Your task to perform on an android device: toggle wifi Image 0: 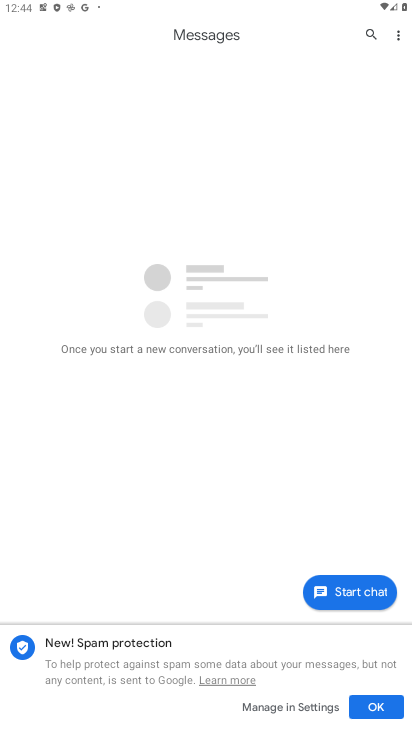
Step 0: press home button
Your task to perform on an android device: toggle wifi Image 1: 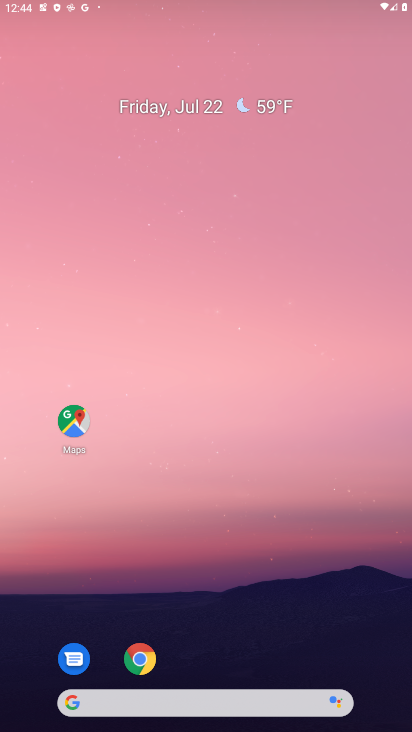
Step 1: drag from (287, 583) to (228, 48)
Your task to perform on an android device: toggle wifi Image 2: 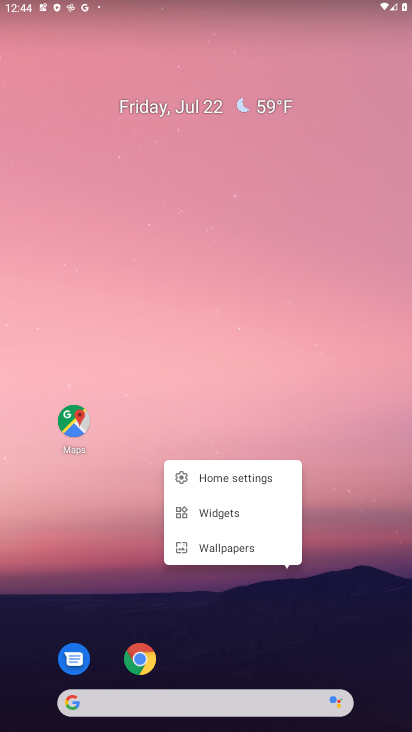
Step 2: click (387, 495)
Your task to perform on an android device: toggle wifi Image 3: 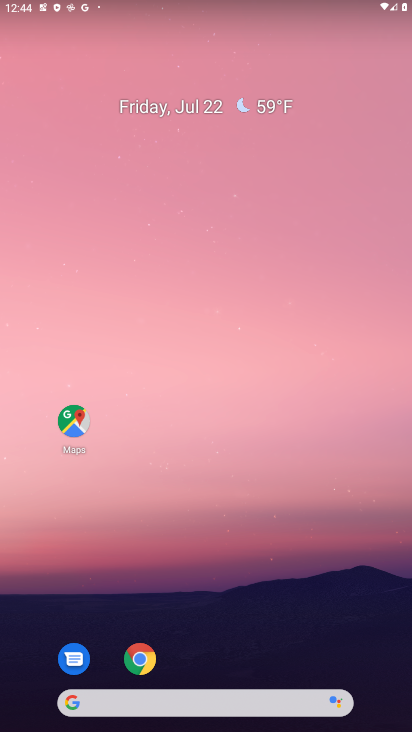
Step 3: drag from (335, 592) to (211, 107)
Your task to perform on an android device: toggle wifi Image 4: 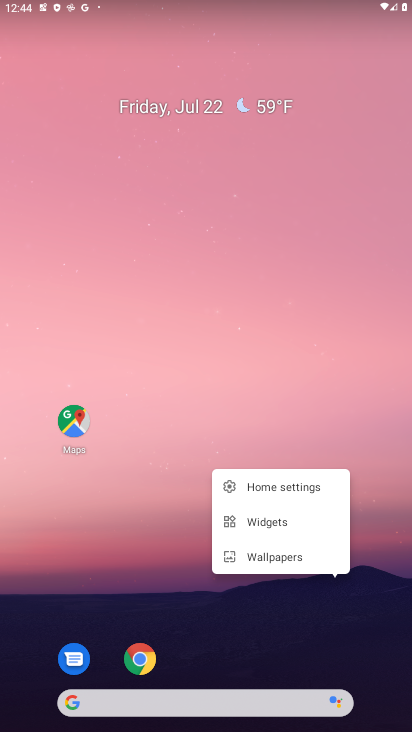
Step 4: click (192, 684)
Your task to perform on an android device: toggle wifi Image 5: 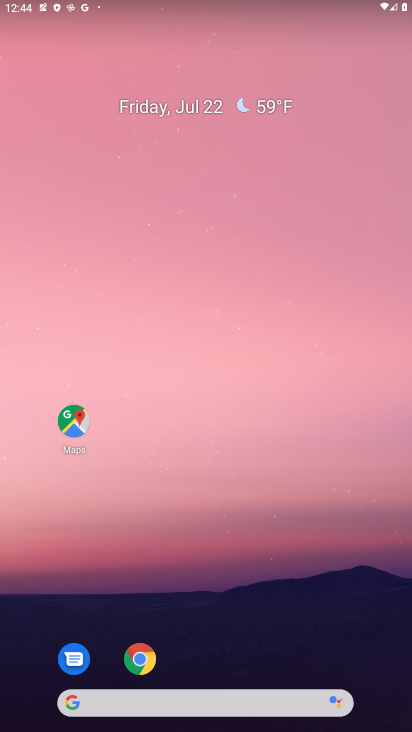
Step 5: drag from (244, 679) to (222, 46)
Your task to perform on an android device: toggle wifi Image 6: 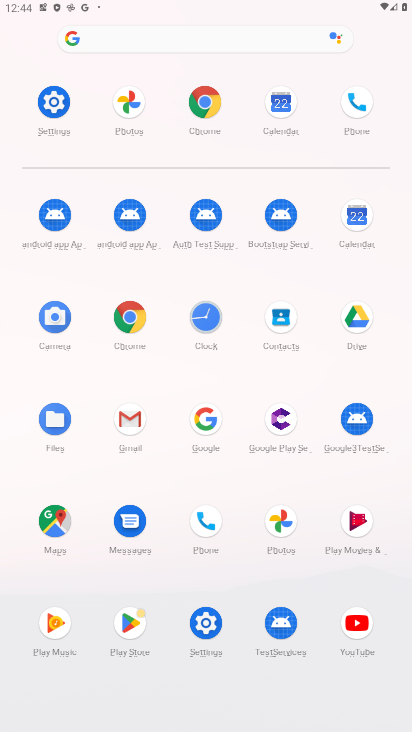
Step 6: click (216, 626)
Your task to perform on an android device: toggle wifi Image 7: 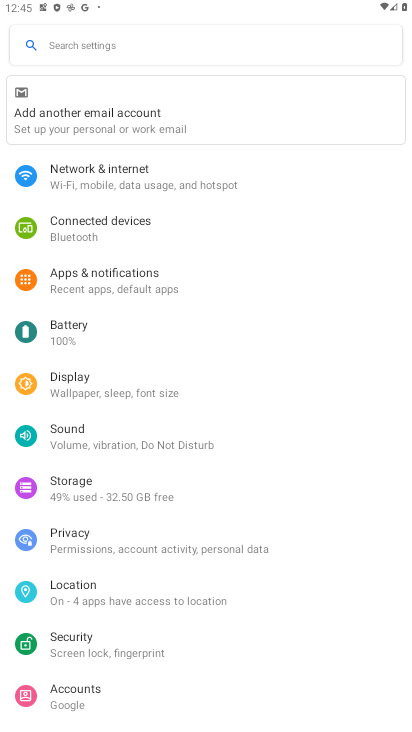
Step 7: click (144, 180)
Your task to perform on an android device: toggle wifi Image 8: 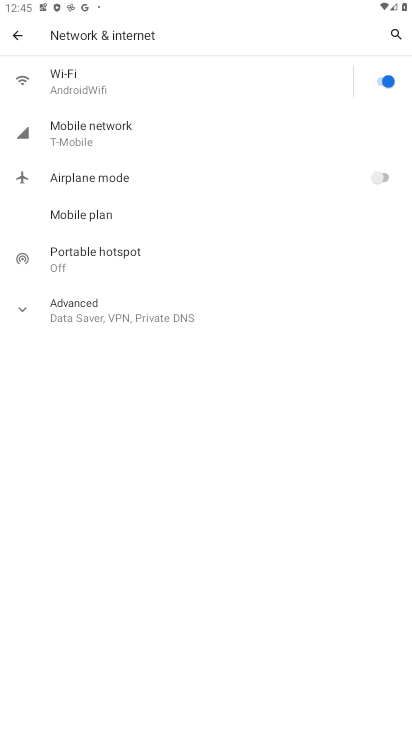
Step 8: click (387, 89)
Your task to perform on an android device: toggle wifi Image 9: 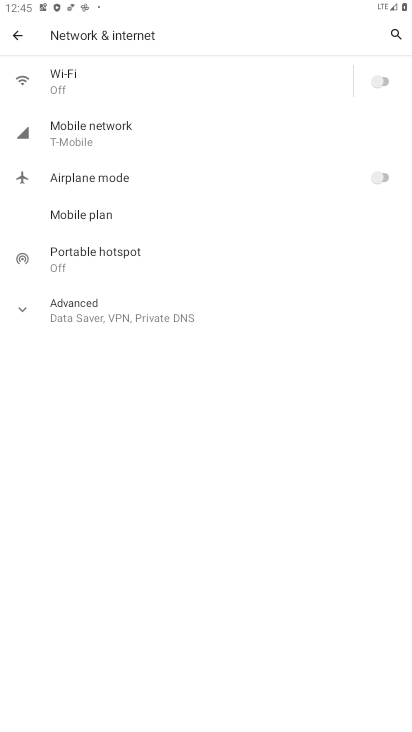
Step 9: task complete